Your task to perform on an android device: Open Chrome and go to settings Image 0: 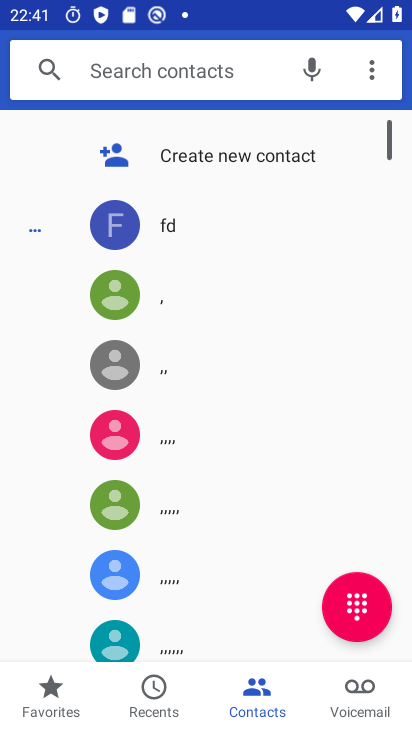
Step 0: press home button
Your task to perform on an android device: Open Chrome and go to settings Image 1: 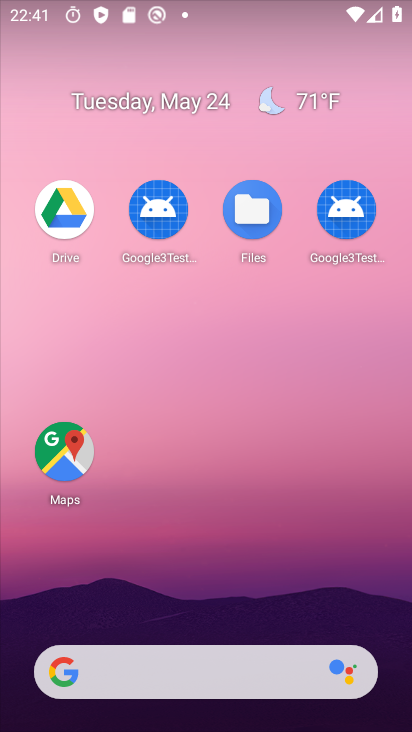
Step 1: drag from (186, 620) to (165, 103)
Your task to perform on an android device: Open Chrome and go to settings Image 2: 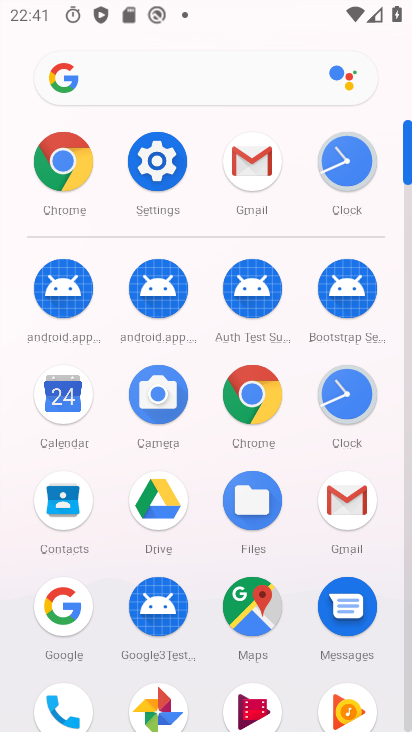
Step 2: click (258, 417)
Your task to perform on an android device: Open Chrome and go to settings Image 3: 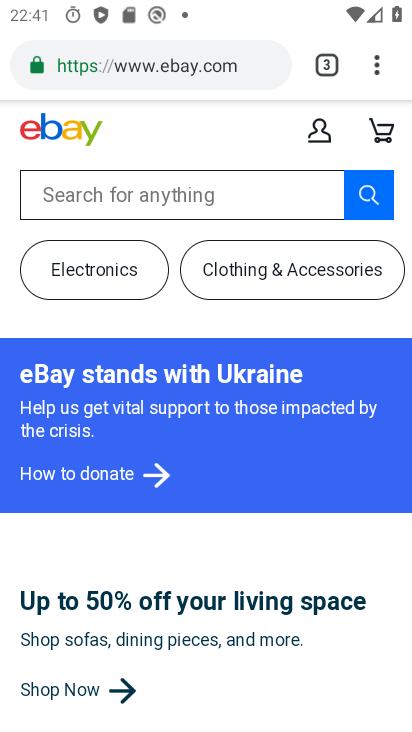
Step 3: click (375, 58)
Your task to perform on an android device: Open Chrome and go to settings Image 4: 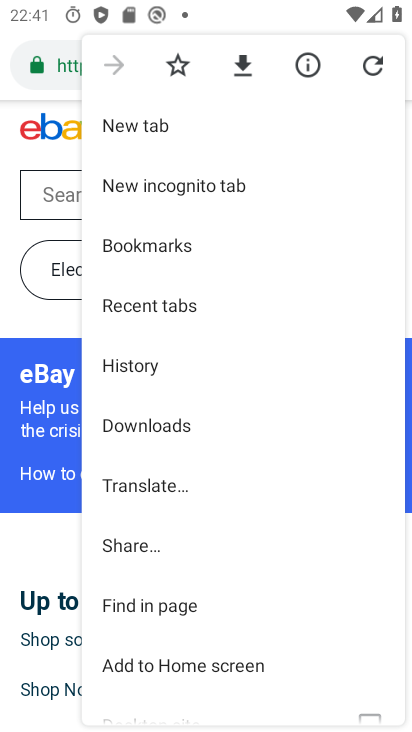
Step 4: drag from (150, 537) to (135, 153)
Your task to perform on an android device: Open Chrome and go to settings Image 5: 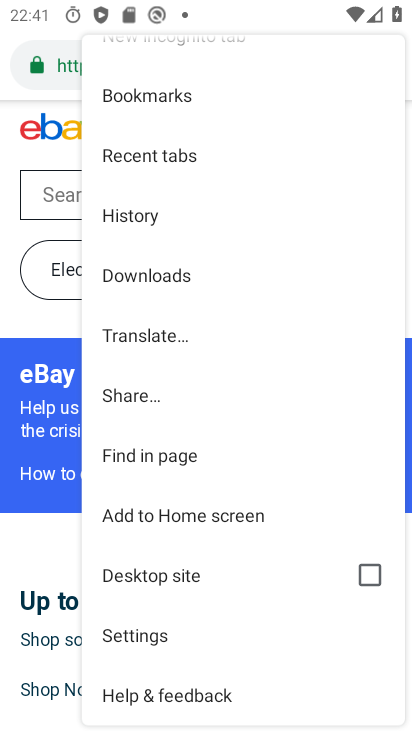
Step 5: click (154, 636)
Your task to perform on an android device: Open Chrome and go to settings Image 6: 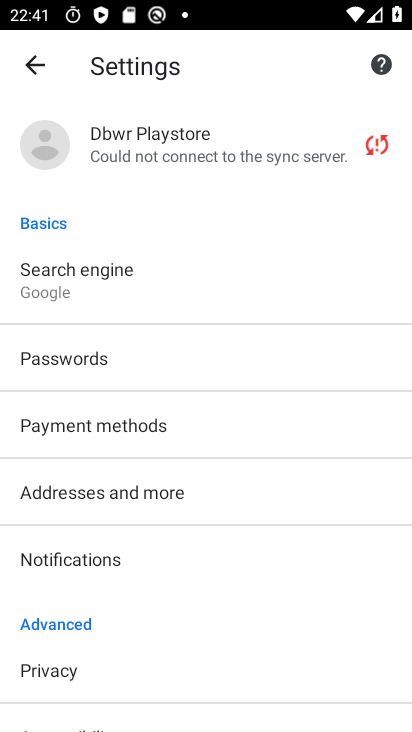
Step 6: task complete